Your task to perform on an android device: Open the calendar and show me this week's events Image 0: 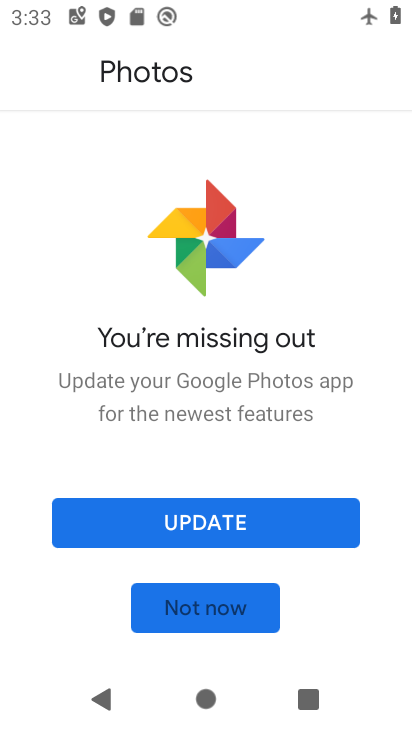
Step 0: press home button
Your task to perform on an android device: Open the calendar and show me this week's events Image 1: 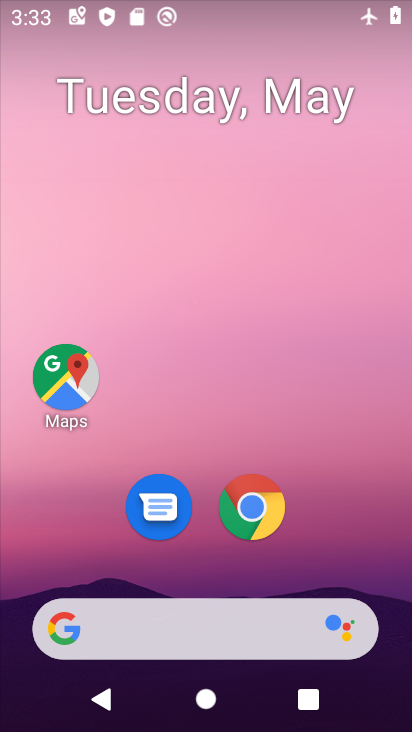
Step 1: drag from (193, 597) to (289, 51)
Your task to perform on an android device: Open the calendar and show me this week's events Image 2: 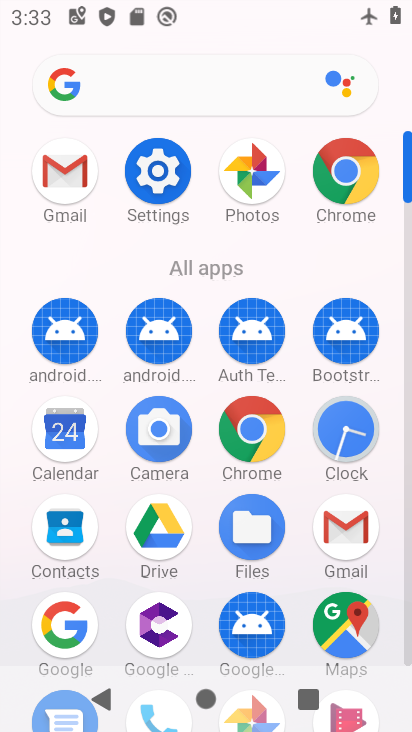
Step 2: click (60, 427)
Your task to perform on an android device: Open the calendar and show me this week's events Image 3: 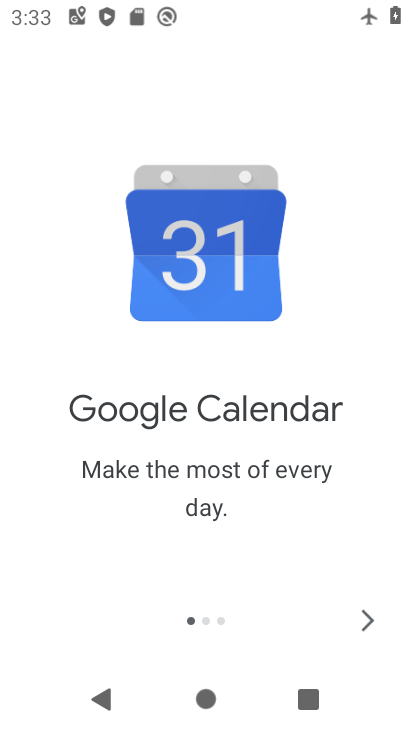
Step 3: click (369, 620)
Your task to perform on an android device: Open the calendar and show me this week's events Image 4: 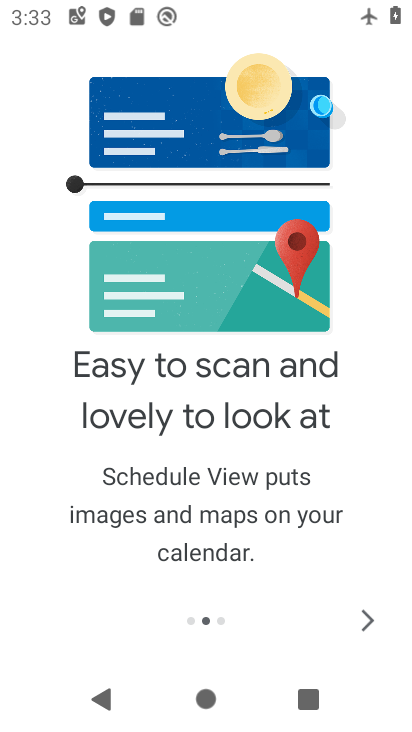
Step 4: click (370, 620)
Your task to perform on an android device: Open the calendar and show me this week's events Image 5: 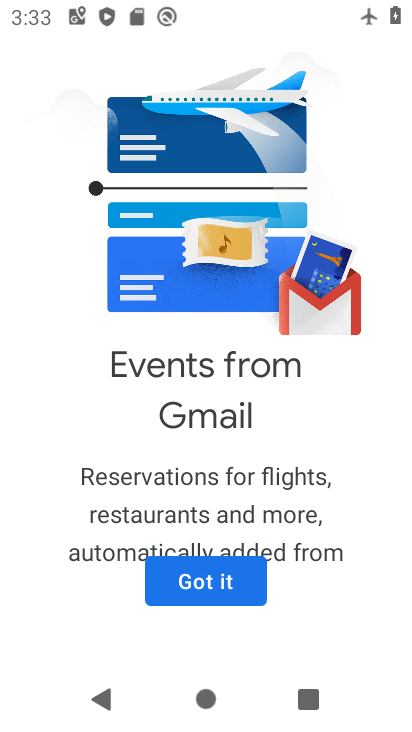
Step 5: click (229, 578)
Your task to perform on an android device: Open the calendar and show me this week's events Image 6: 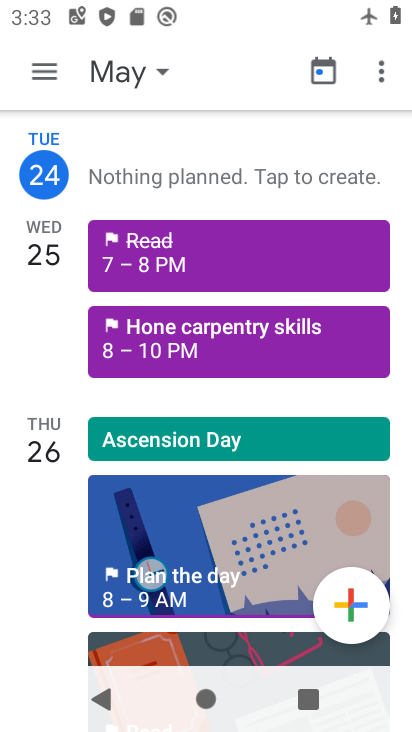
Step 6: click (144, 80)
Your task to perform on an android device: Open the calendar and show me this week's events Image 7: 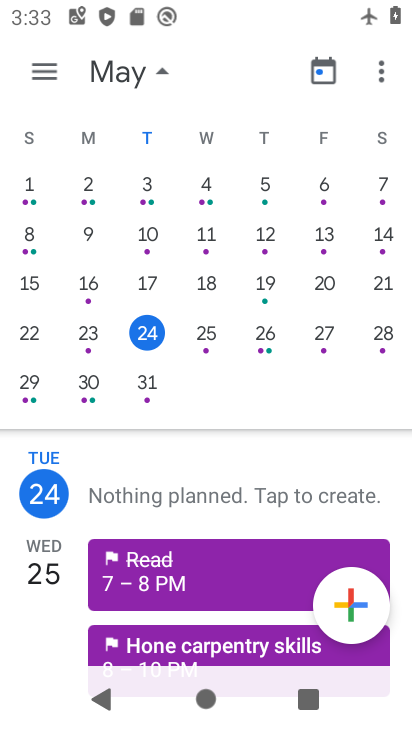
Step 7: click (158, 332)
Your task to perform on an android device: Open the calendar and show me this week's events Image 8: 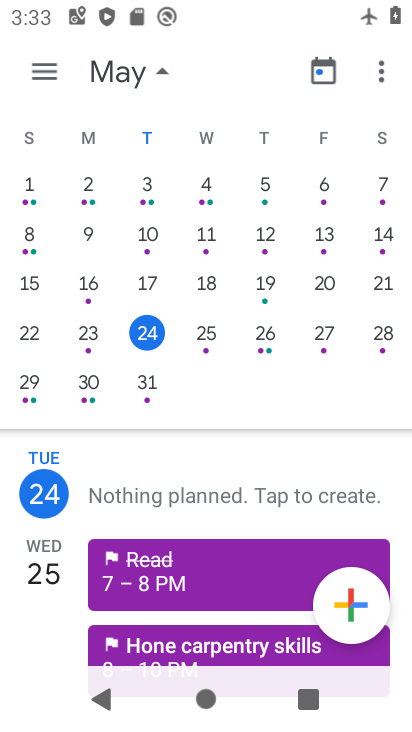
Step 8: task complete